Your task to perform on an android device: change notifications settings Image 0: 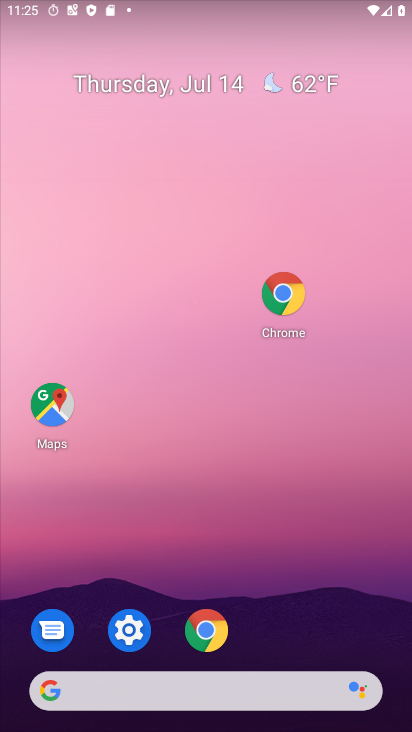
Step 0: drag from (284, 681) to (212, 165)
Your task to perform on an android device: change notifications settings Image 1: 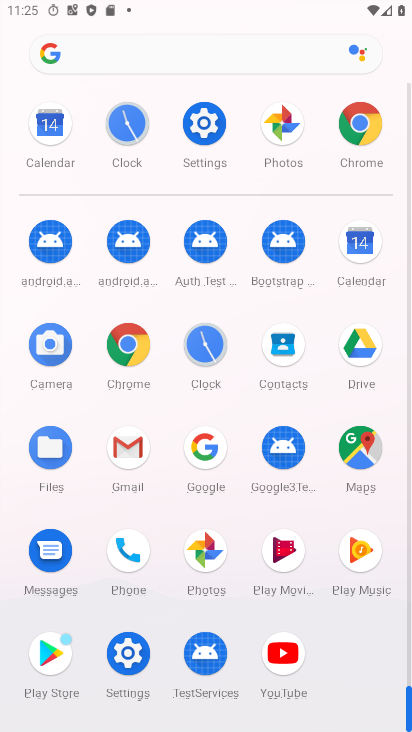
Step 1: click (201, 123)
Your task to perform on an android device: change notifications settings Image 2: 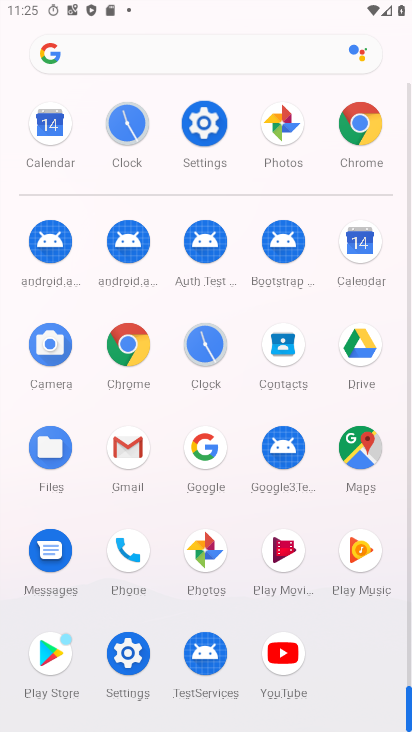
Step 2: click (202, 122)
Your task to perform on an android device: change notifications settings Image 3: 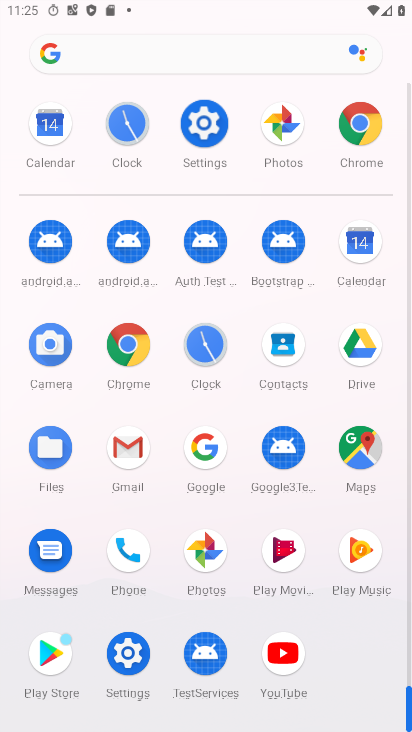
Step 3: click (202, 121)
Your task to perform on an android device: change notifications settings Image 4: 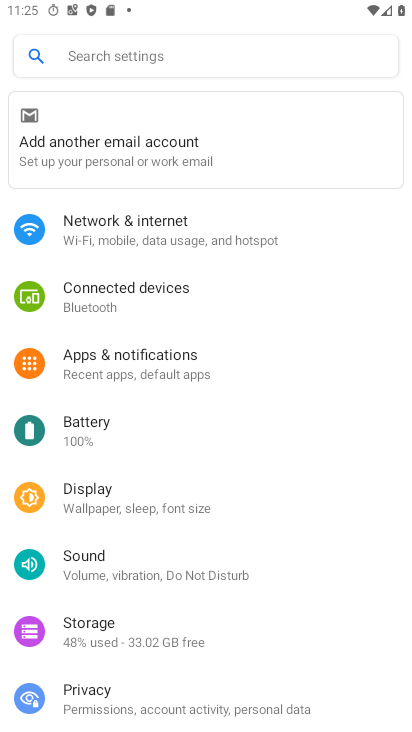
Step 4: click (127, 365)
Your task to perform on an android device: change notifications settings Image 5: 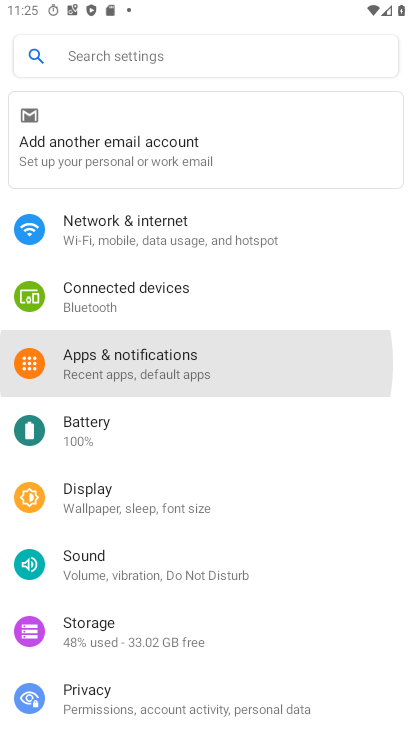
Step 5: click (118, 362)
Your task to perform on an android device: change notifications settings Image 6: 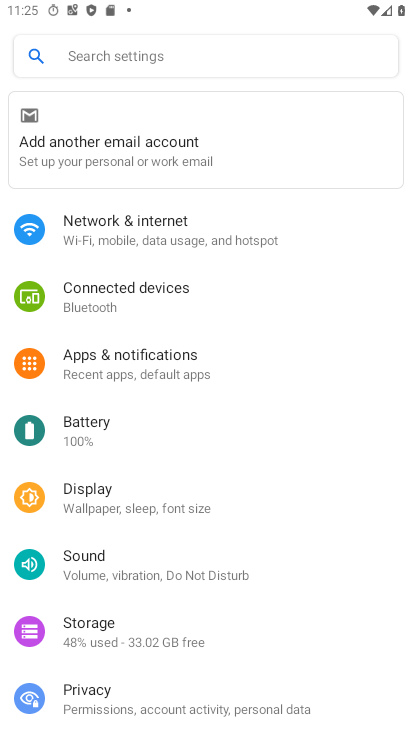
Step 6: click (120, 359)
Your task to perform on an android device: change notifications settings Image 7: 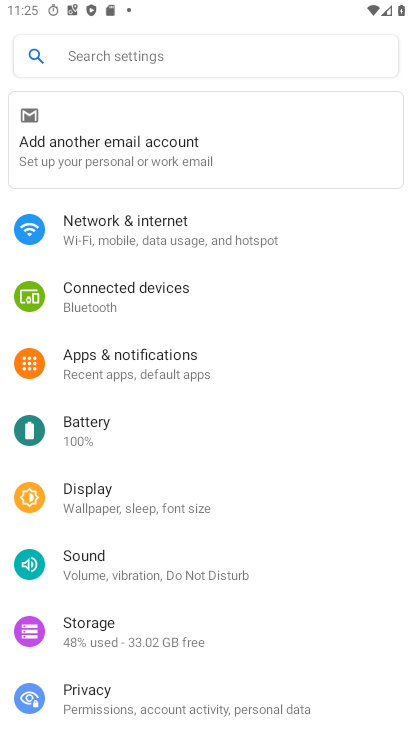
Step 7: click (125, 358)
Your task to perform on an android device: change notifications settings Image 8: 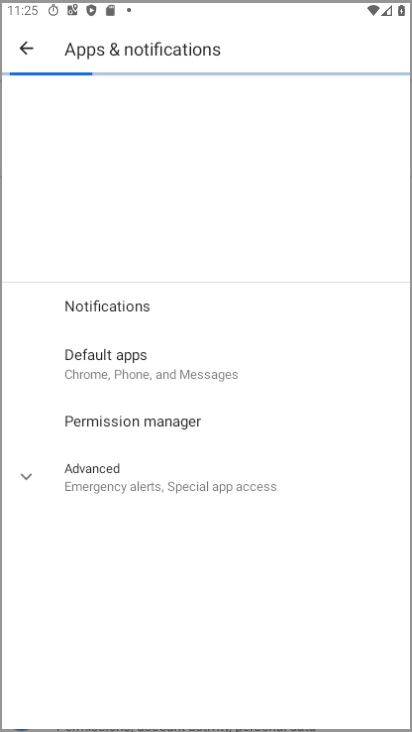
Step 8: click (126, 357)
Your task to perform on an android device: change notifications settings Image 9: 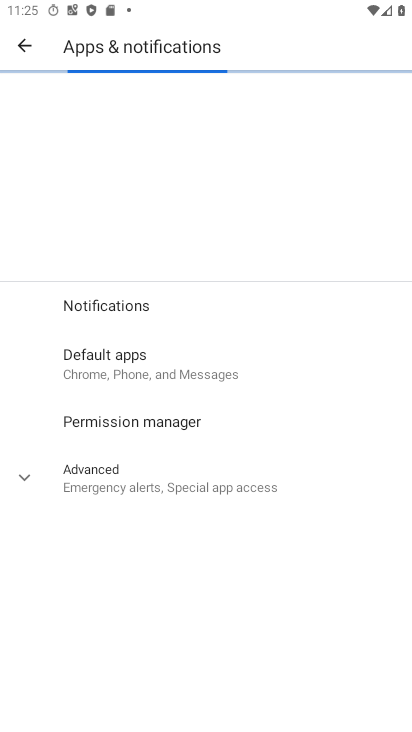
Step 9: click (126, 357)
Your task to perform on an android device: change notifications settings Image 10: 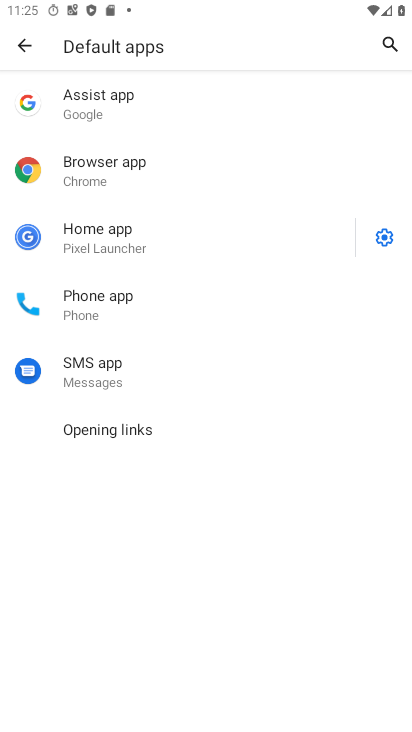
Step 10: click (19, 38)
Your task to perform on an android device: change notifications settings Image 11: 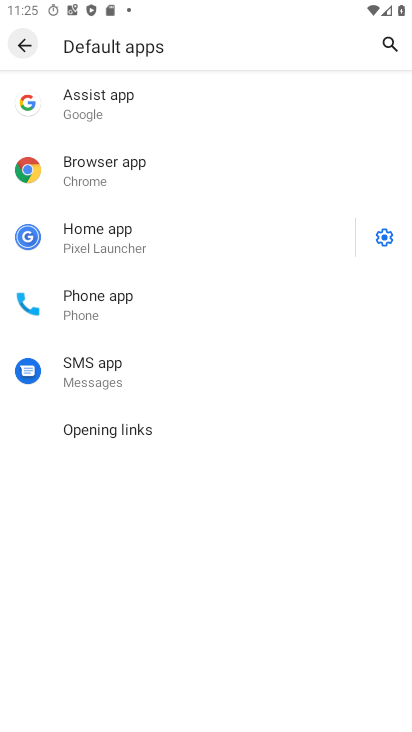
Step 11: click (19, 37)
Your task to perform on an android device: change notifications settings Image 12: 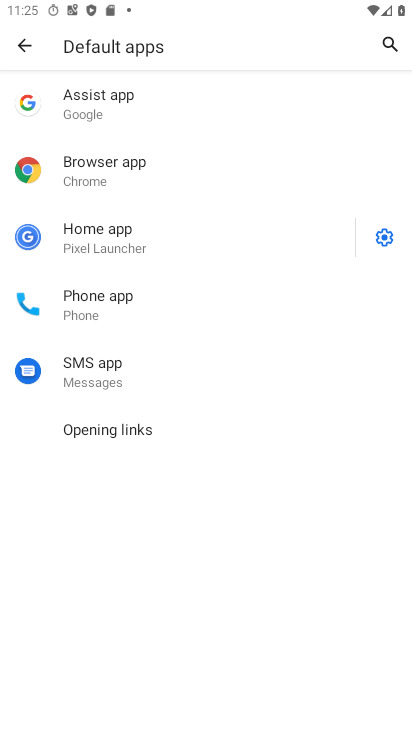
Step 12: click (27, 35)
Your task to perform on an android device: change notifications settings Image 13: 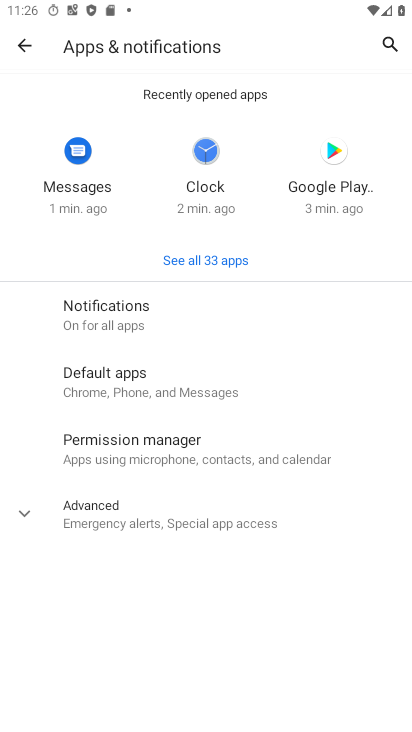
Step 13: click (102, 306)
Your task to perform on an android device: change notifications settings Image 14: 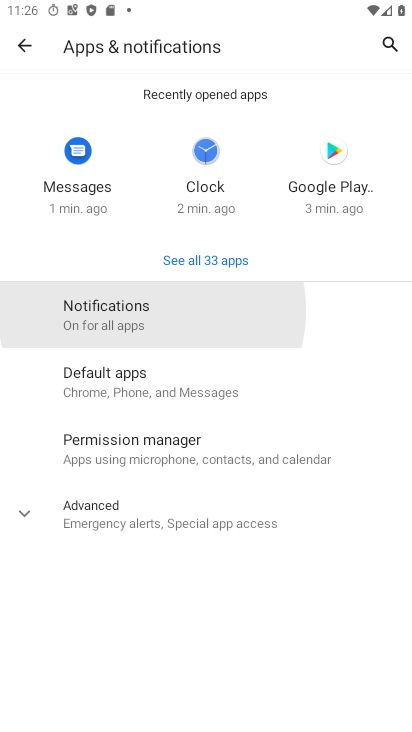
Step 14: click (97, 308)
Your task to perform on an android device: change notifications settings Image 15: 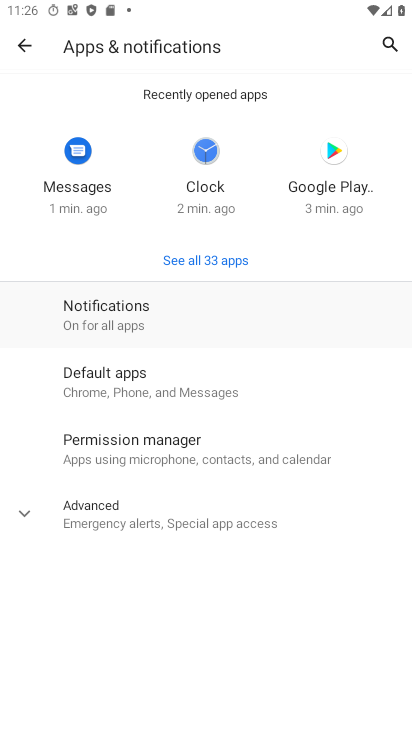
Step 15: click (97, 308)
Your task to perform on an android device: change notifications settings Image 16: 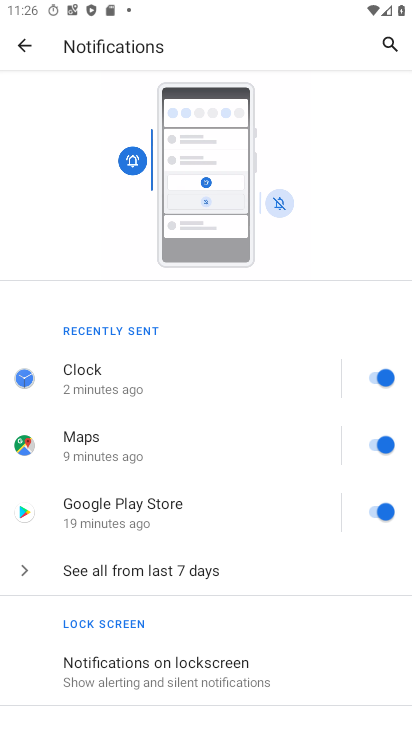
Step 16: click (141, 96)
Your task to perform on an android device: change notifications settings Image 17: 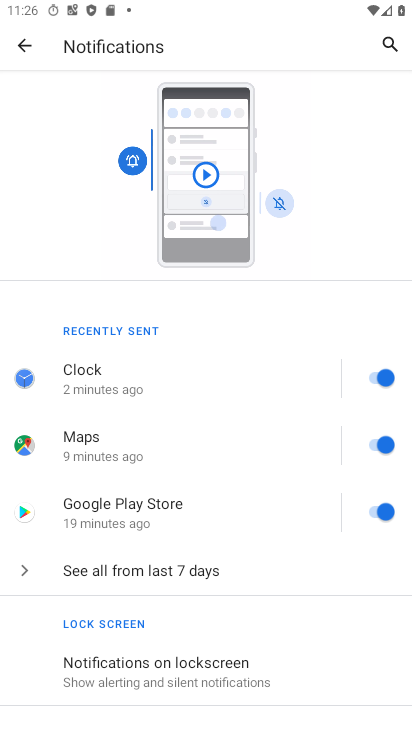
Step 17: drag from (231, 627) to (160, 283)
Your task to perform on an android device: change notifications settings Image 18: 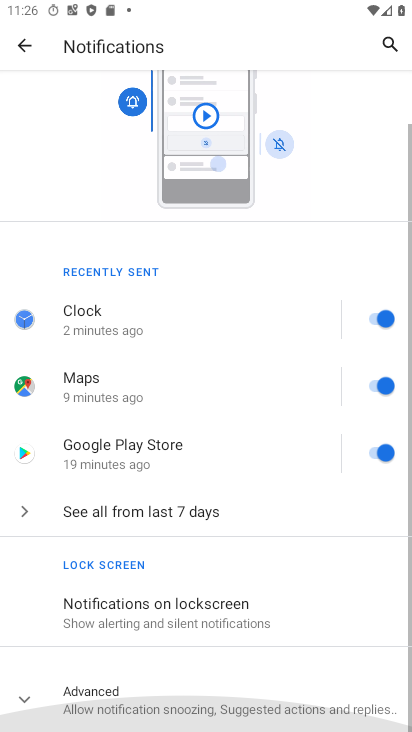
Step 18: drag from (231, 341) to (364, 6)
Your task to perform on an android device: change notifications settings Image 19: 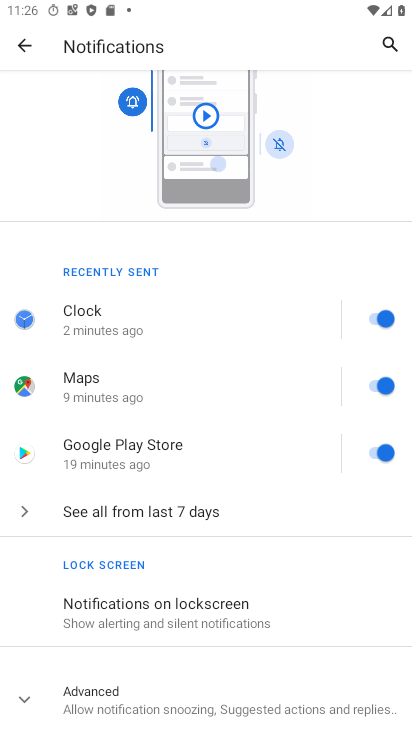
Step 19: click (93, 715)
Your task to perform on an android device: change notifications settings Image 20: 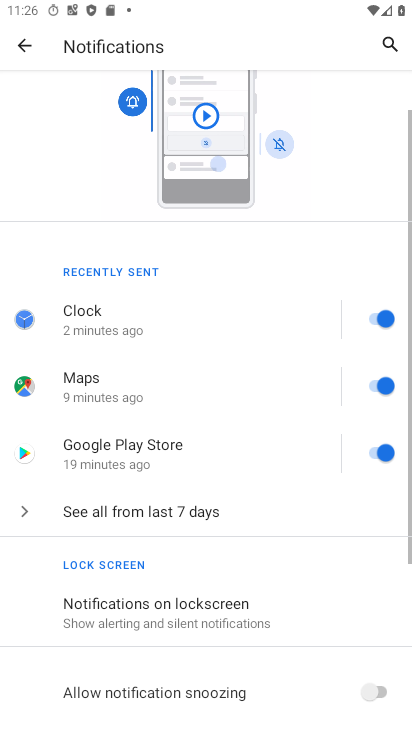
Step 20: click (92, 705)
Your task to perform on an android device: change notifications settings Image 21: 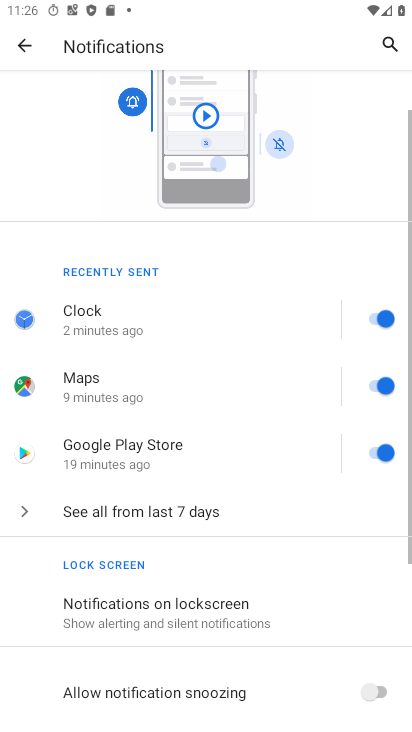
Step 21: click (96, 706)
Your task to perform on an android device: change notifications settings Image 22: 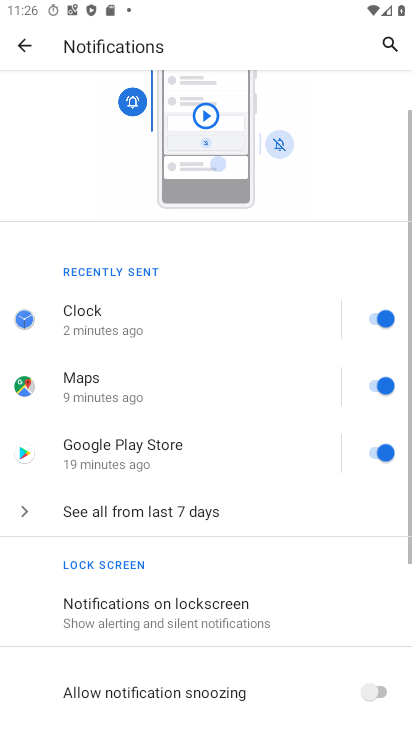
Step 22: drag from (230, 602) to (272, 148)
Your task to perform on an android device: change notifications settings Image 23: 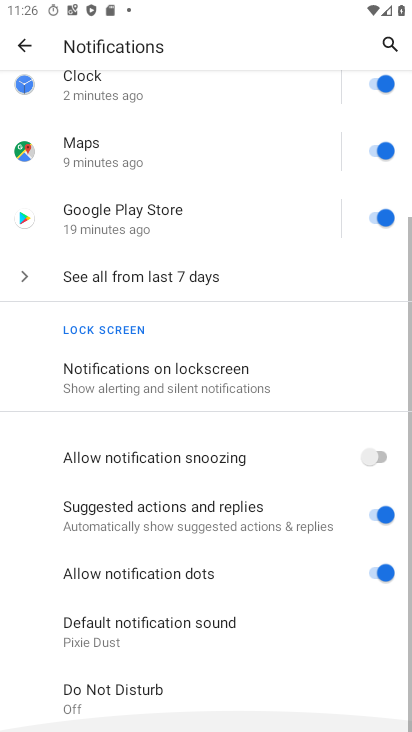
Step 23: drag from (302, 580) to (256, 174)
Your task to perform on an android device: change notifications settings Image 24: 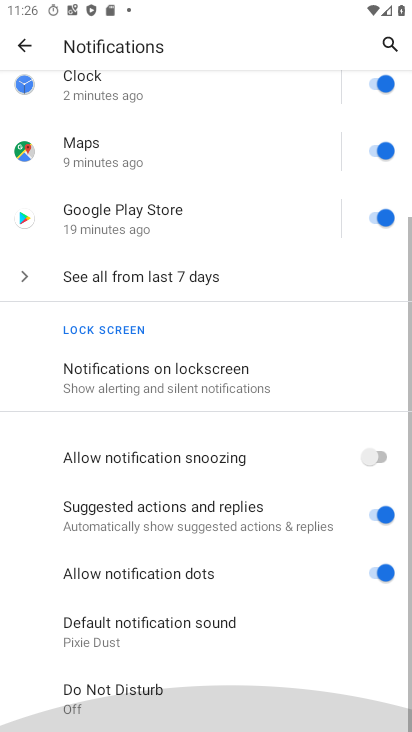
Step 24: drag from (281, 564) to (223, 251)
Your task to perform on an android device: change notifications settings Image 25: 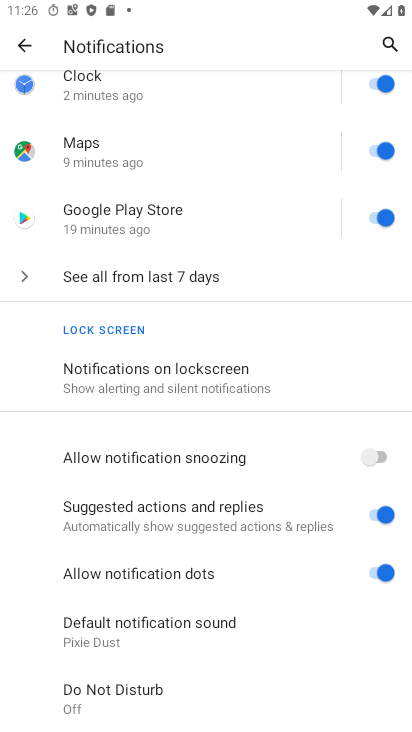
Step 25: click (375, 506)
Your task to perform on an android device: change notifications settings Image 26: 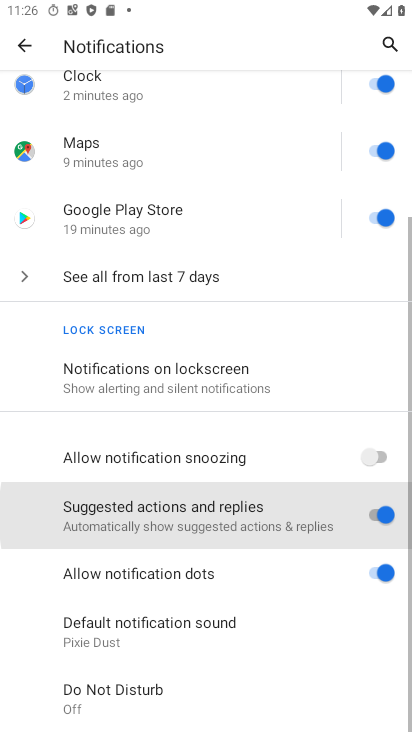
Step 26: click (382, 582)
Your task to perform on an android device: change notifications settings Image 27: 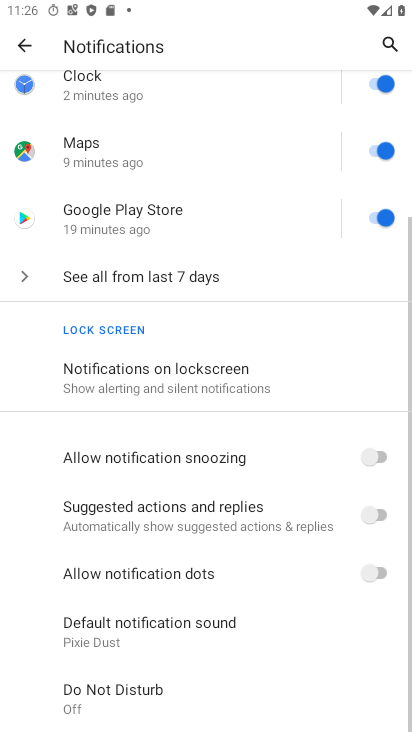
Step 27: click (388, 219)
Your task to perform on an android device: change notifications settings Image 28: 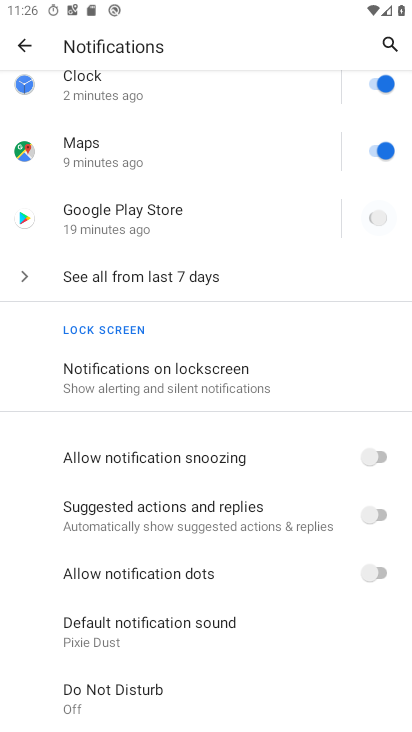
Step 28: click (381, 149)
Your task to perform on an android device: change notifications settings Image 29: 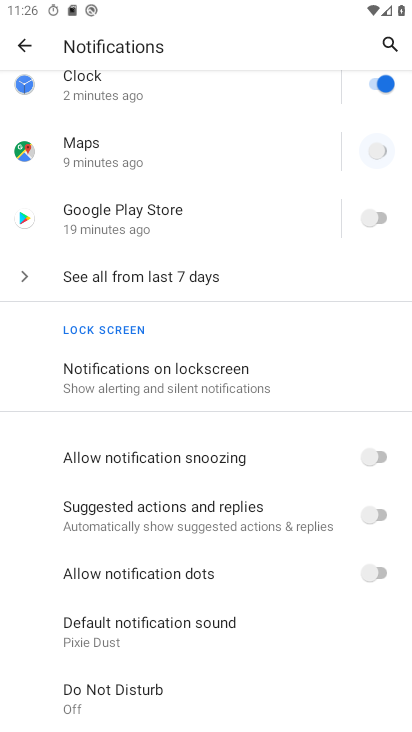
Step 29: click (381, 80)
Your task to perform on an android device: change notifications settings Image 30: 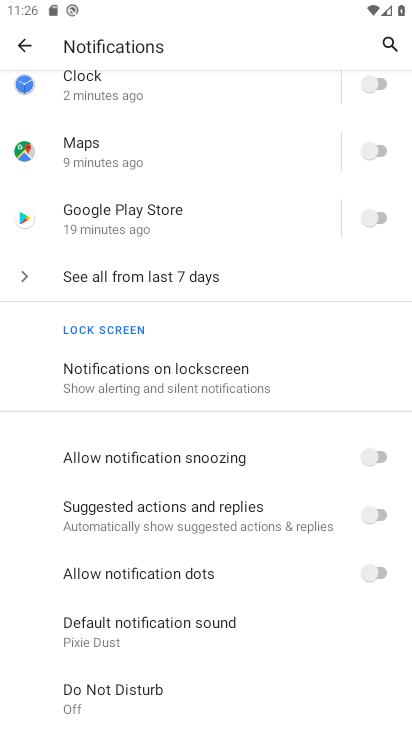
Step 30: task complete